Your task to perform on an android device: turn on improve location accuracy Image 0: 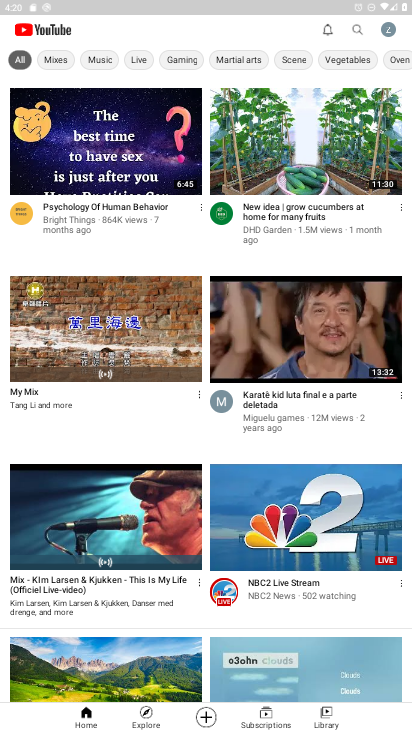
Step 0: press home button
Your task to perform on an android device: turn on improve location accuracy Image 1: 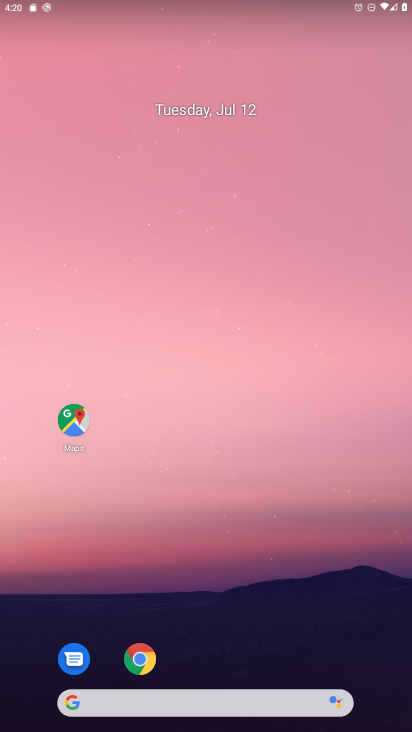
Step 1: drag from (192, 604) to (168, 201)
Your task to perform on an android device: turn on improve location accuracy Image 2: 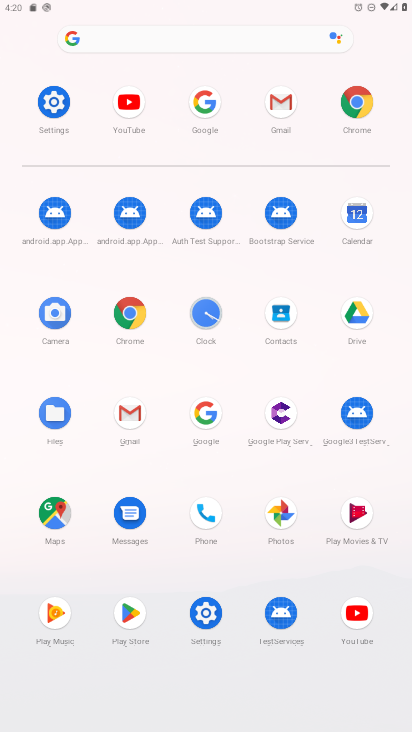
Step 2: click (45, 107)
Your task to perform on an android device: turn on improve location accuracy Image 3: 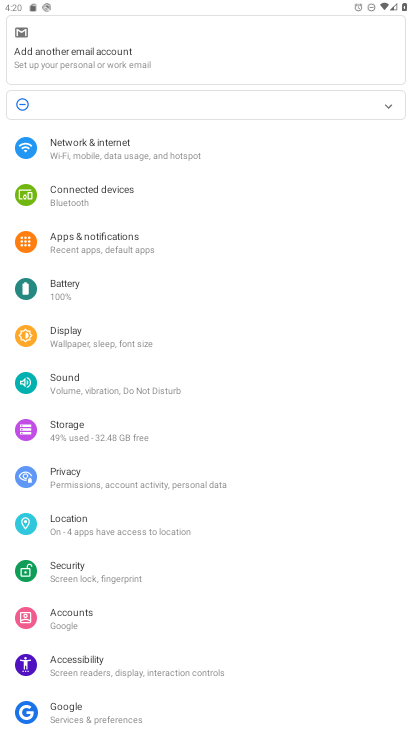
Step 3: click (73, 539)
Your task to perform on an android device: turn on improve location accuracy Image 4: 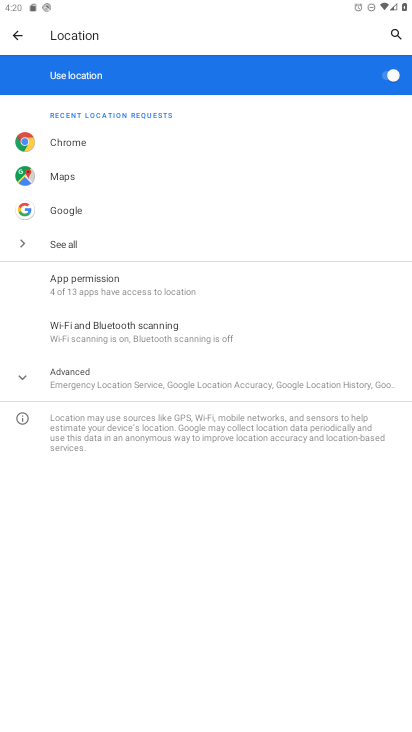
Step 4: click (67, 373)
Your task to perform on an android device: turn on improve location accuracy Image 5: 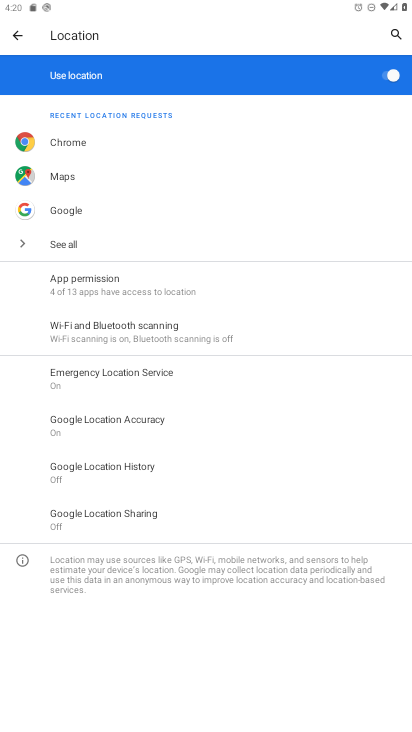
Step 5: click (95, 429)
Your task to perform on an android device: turn on improve location accuracy Image 6: 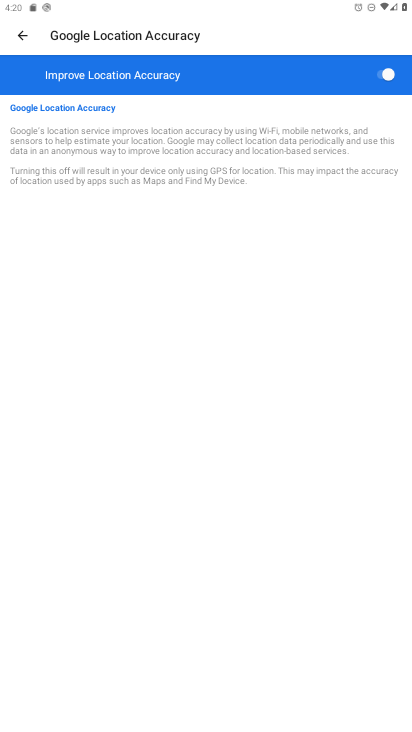
Step 6: task complete